Your task to perform on an android device: change the clock style Image 0: 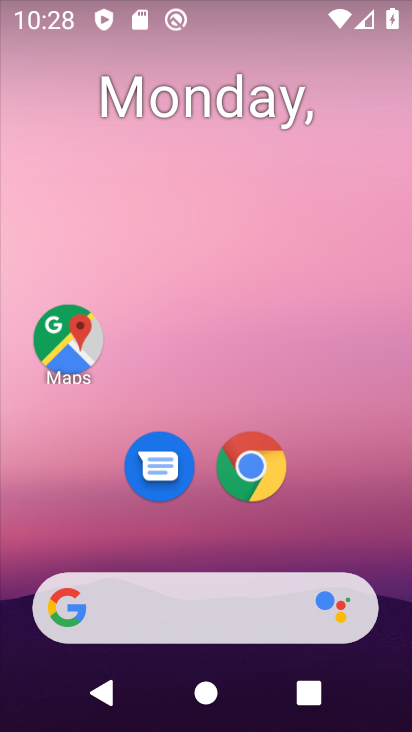
Step 0: drag from (348, 530) to (294, 17)
Your task to perform on an android device: change the clock style Image 1: 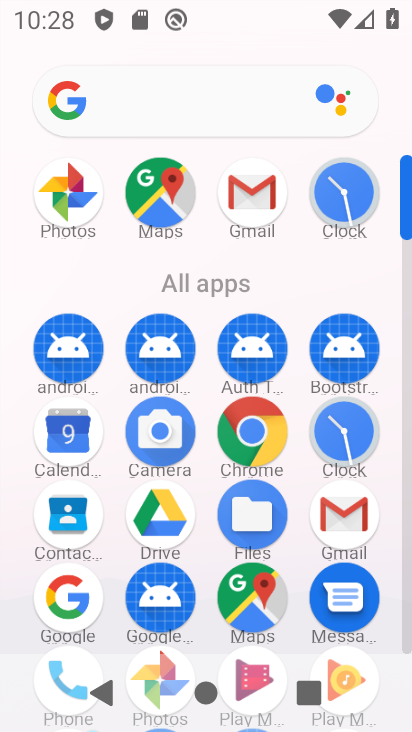
Step 1: click (357, 203)
Your task to perform on an android device: change the clock style Image 2: 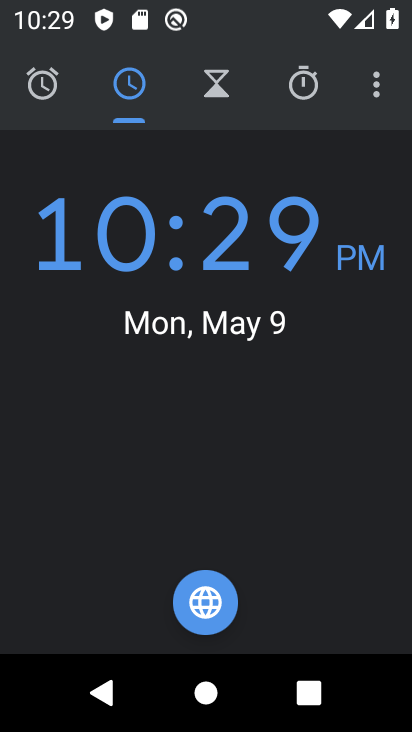
Step 2: click (369, 102)
Your task to perform on an android device: change the clock style Image 3: 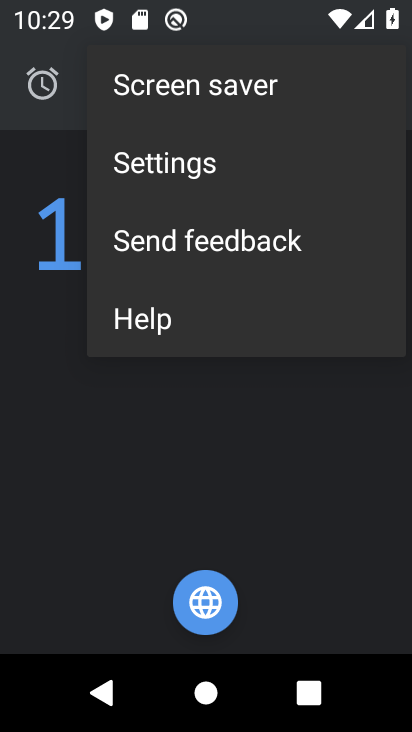
Step 3: click (235, 161)
Your task to perform on an android device: change the clock style Image 4: 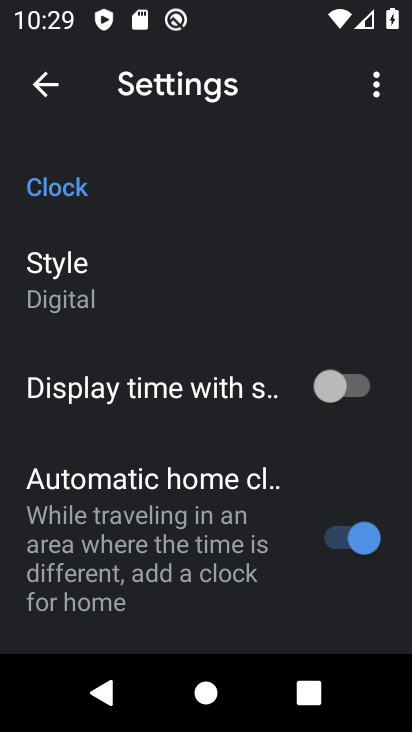
Step 4: click (157, 263)
Your task to perform on an android device: change the clock style Image 5: 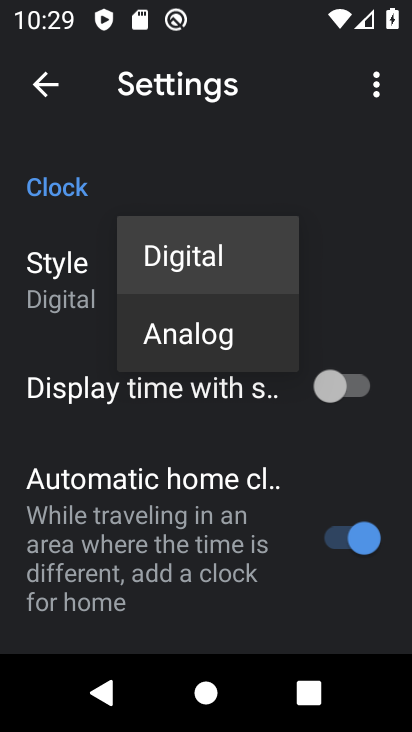
Step 5: click (161, 358)
Your task to perform on an android device: change the clock style Image 6: 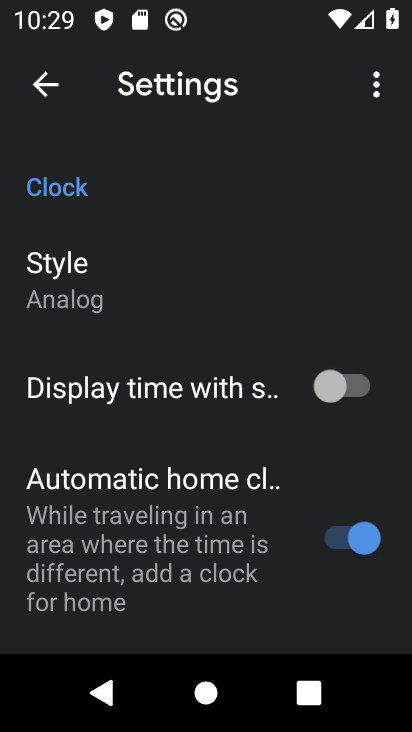
Step 6: task complete